Your task to perform on an android device: change your default location settings in chrome Image 0: 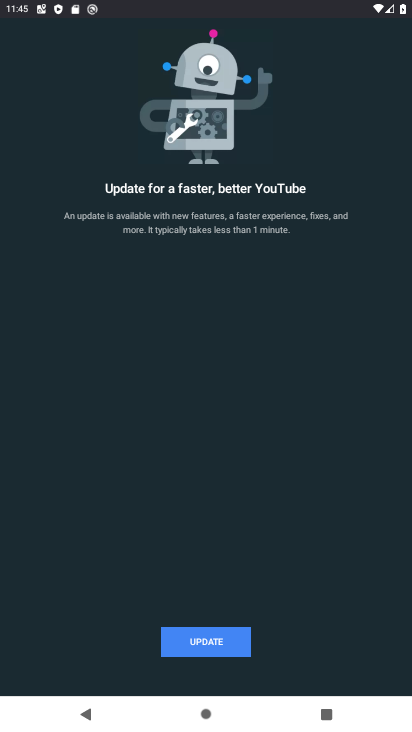
Step 0: press back button
Your task to perform on an android device: change your default location settings in chrome Image 1: 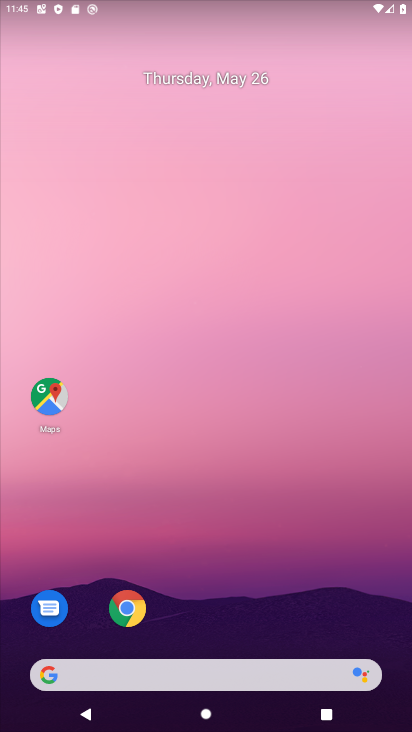
Step 1: drag from (266, 583) to (251, 78)
Your task to perform on an android device: change your default location settings in chrome Image 2: 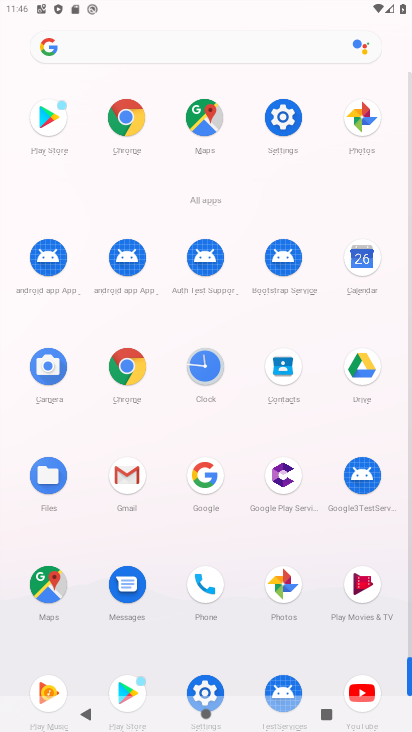
Step 2: drag from (8, 570) to (24, 258)
Your task to perform on an android device: change your default location settings in chrome Image 3: 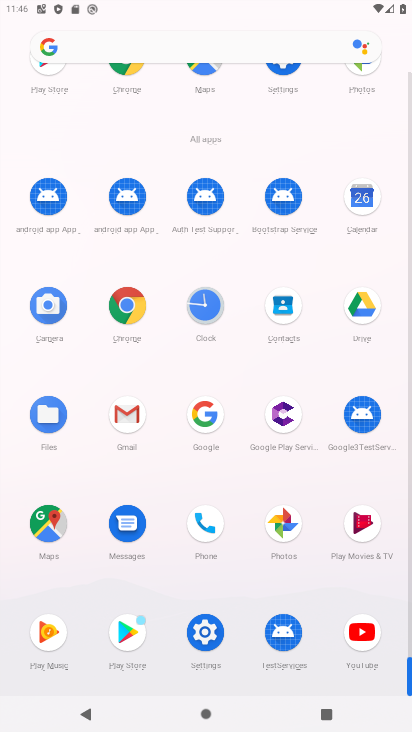
Step 3: click (122, 299)
Your task to perform on an android device: change your default location settings in chrome Image 4: 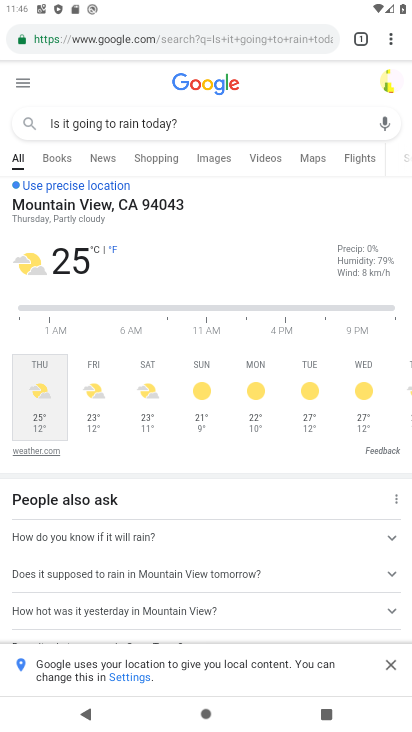
Step 4: drag from (389, 38) to (260, 431)
Your task to perform on an android device: change your default location settings in chrome Image 5: 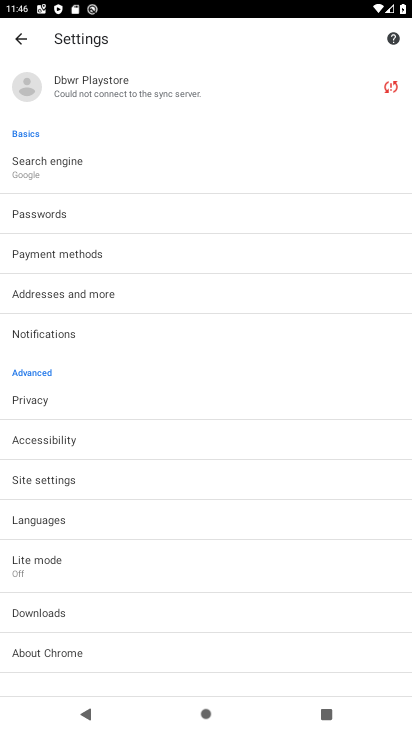
Step 5: click (57, 483)
Your task to perform on an android device: change your default location settings in chrome Image 6: 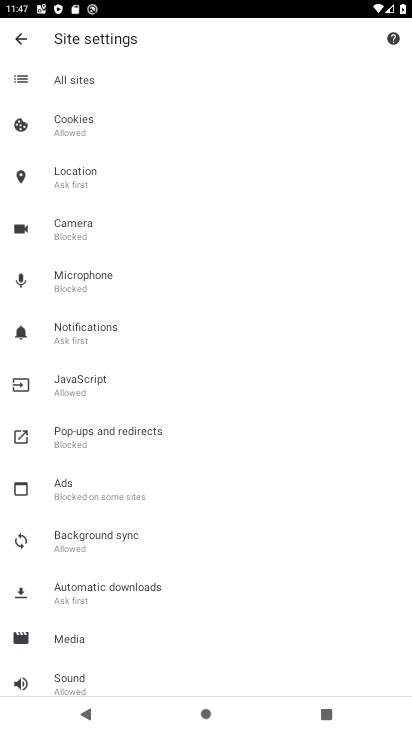
Step 6: click (86, 184)
Your task to perform on an android device: change your default location settings in chrome Image 7: 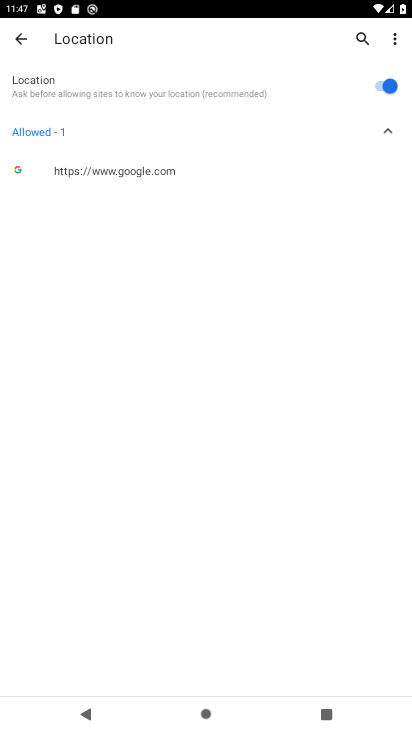
Step 7: task complete